Your task to perform on an android device: Search for Italian restaurants on Maps Image 0: 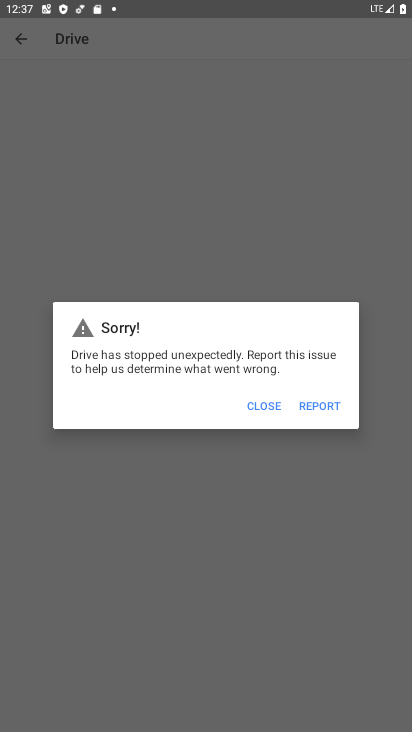
Step 0: press home button
Your task to perform on an android device: Search for Italian restaurants on Maps Image 1: 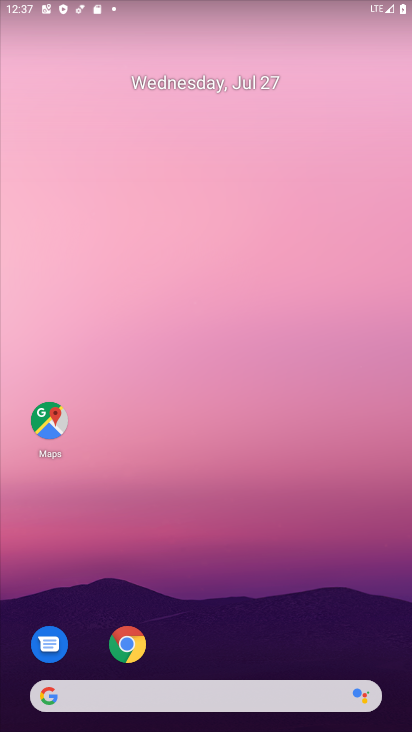
Step 1: click (44, 416)
Your task to perform on an android device: Search for Italian restaurants on Maps Image 2: 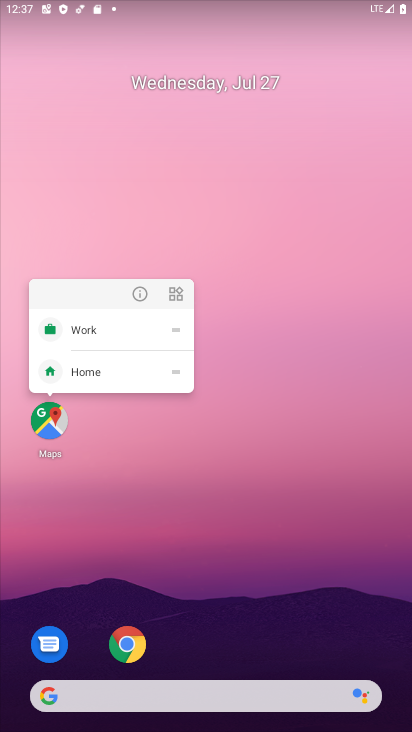
Step 2: click (57, 438)
Your task to perform on an android device: Search for Italian restaurants on Maps Image 3: 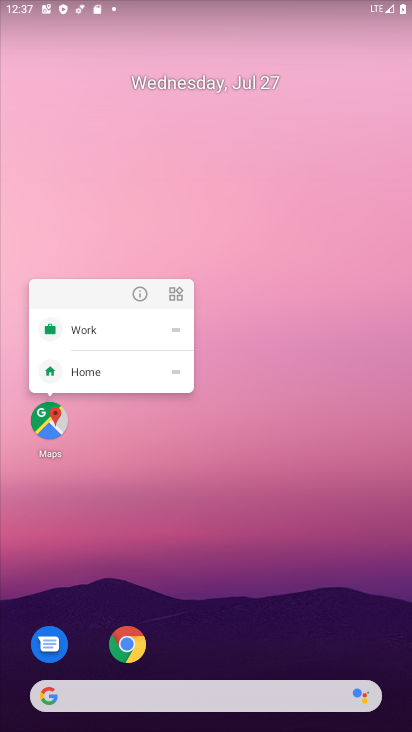
Step 3: click (57, 438)
Your task to perform on an android device: Search for Italian restaurants on Maps Image 4: 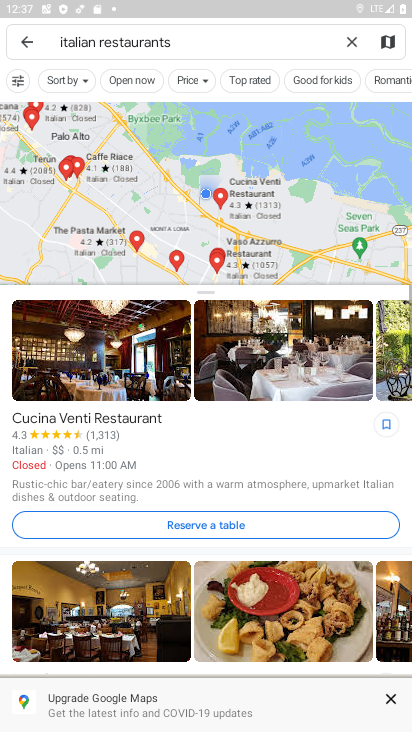
Step 4: task complete